Your task to perform on an android device: Open the Play Movies app and select the watchlist tab. Image 0: 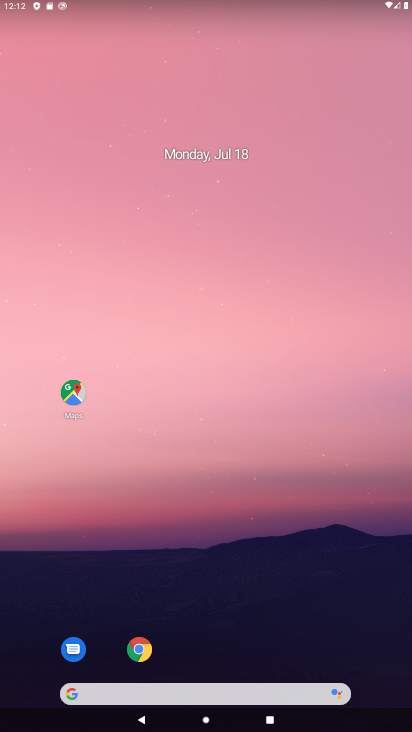
Step 0: drag from (20, 683) to (266, 94)
Your task to perform on an android device: Open the Play Movies app and select the watchlist tab. Image 1: 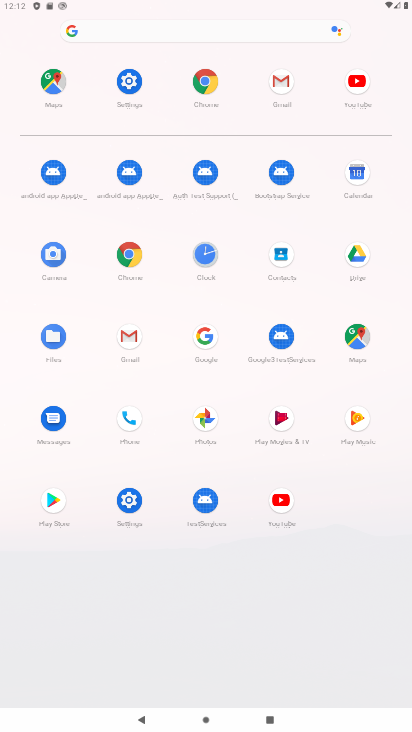
Step 1: click (278, 426)
Your task to perform on an android device: Open the Play Movies app and select the watchlist tab. Image 2: 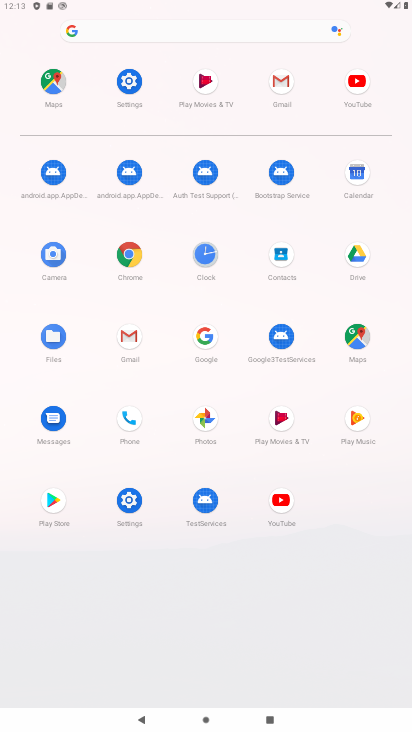
Step 2: click (294, 423)
Your task to perform on an android device: Open the Play Movies app and select the watchlist tab. Image 3: 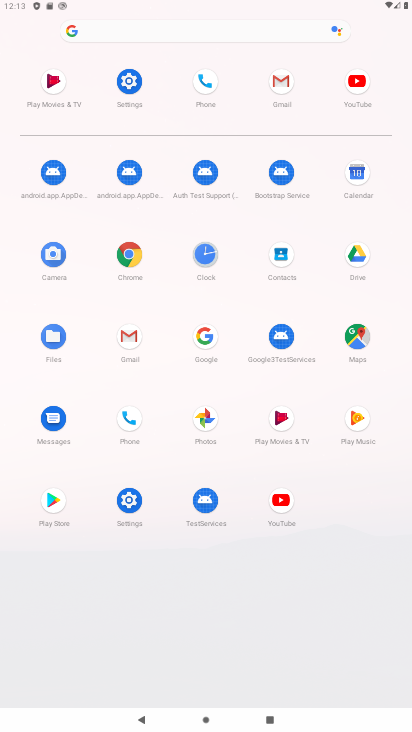
Step 3: click (283, 428)
Your task to perform on an android device: Open the Play Movies app and select the watchlist tab. Image 4: 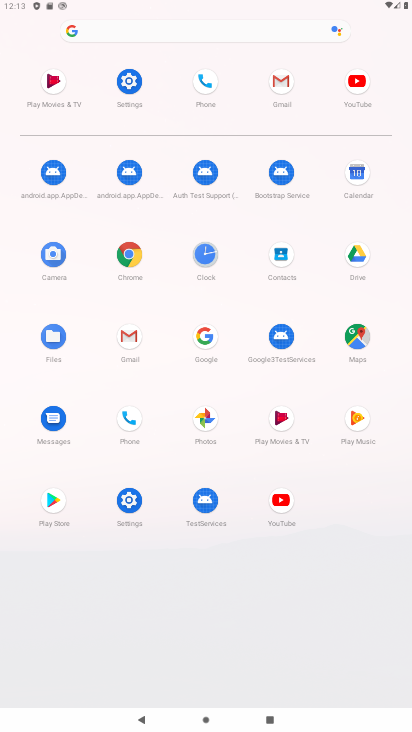
Step 4: task complete